Your task to perform on an android device: manage bookmarks in the chrome app Image 0: 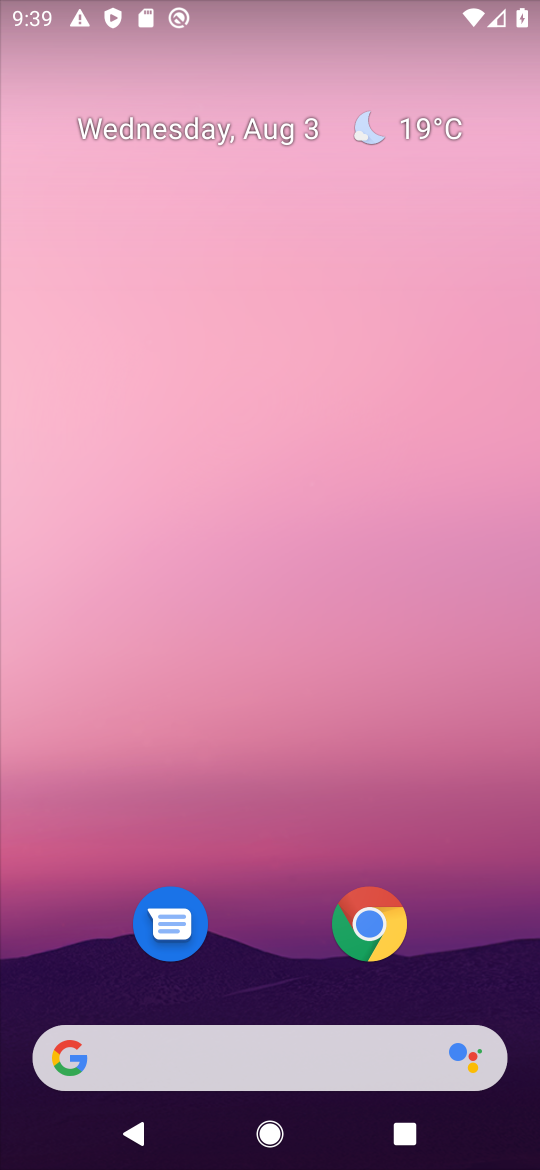
Step 0: press home button
Your task to perform on an android device: manage bookmarks in the chrome app Image 1: 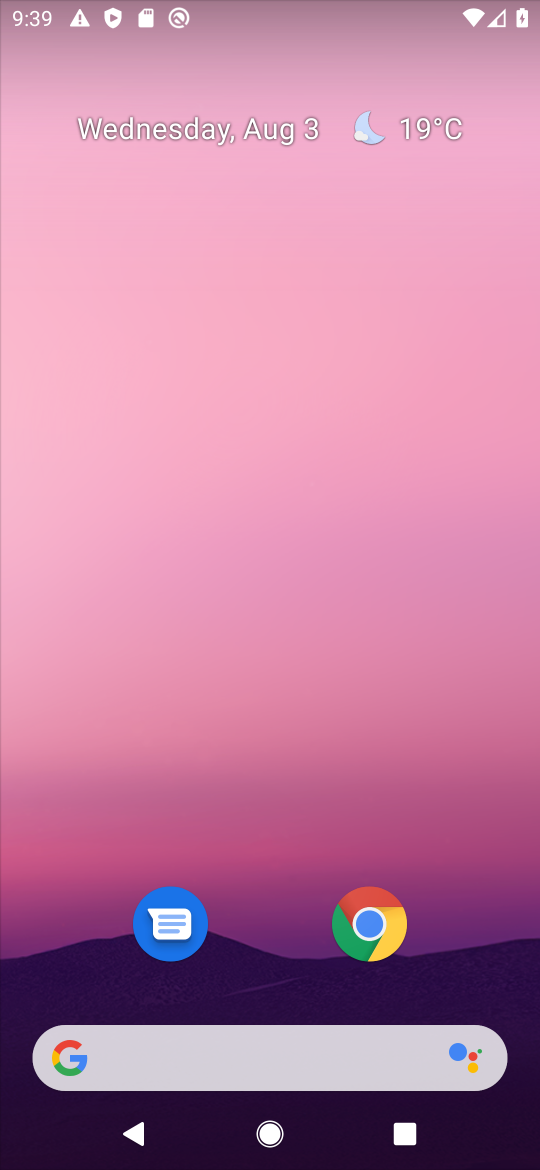
Step 1: click (365, 908)
Your task to perform on an android device: manage bookmarks in the chrome app Image 2: 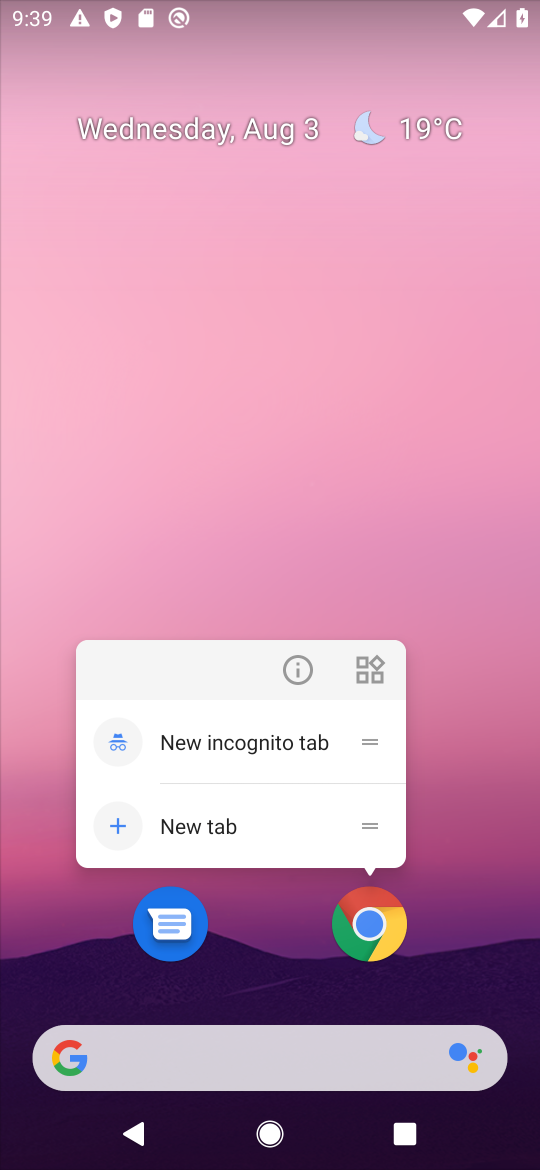
Step 2: click (366, 903)
Your task to perform on an android device: manage bookmarks in the chrome app Image 3: 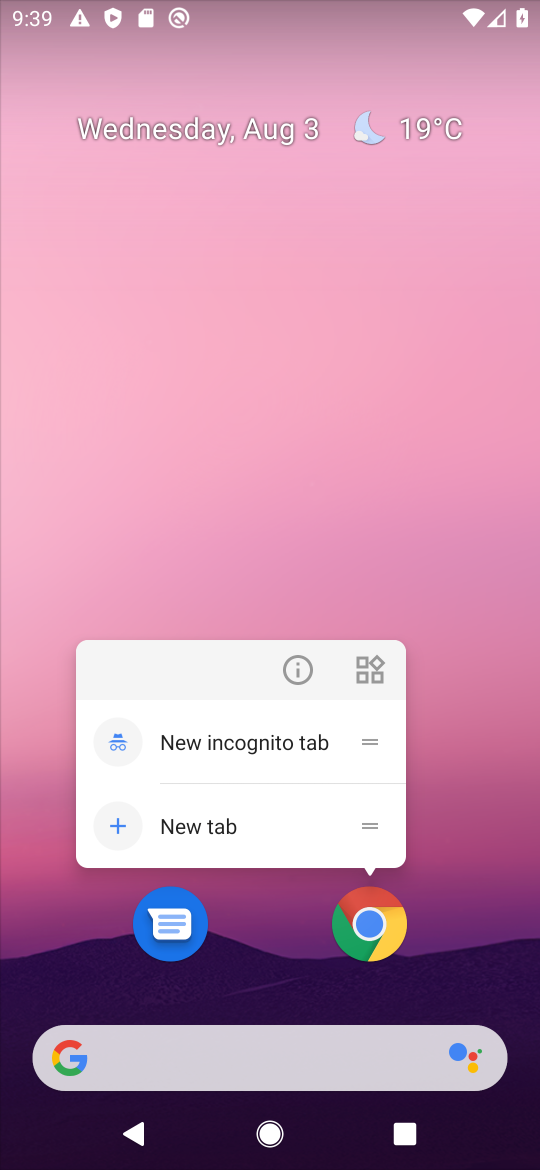
Step 3: click (367, 915)
Your task to perform on an android device: manage bookmarks in the chrome app Image 4: 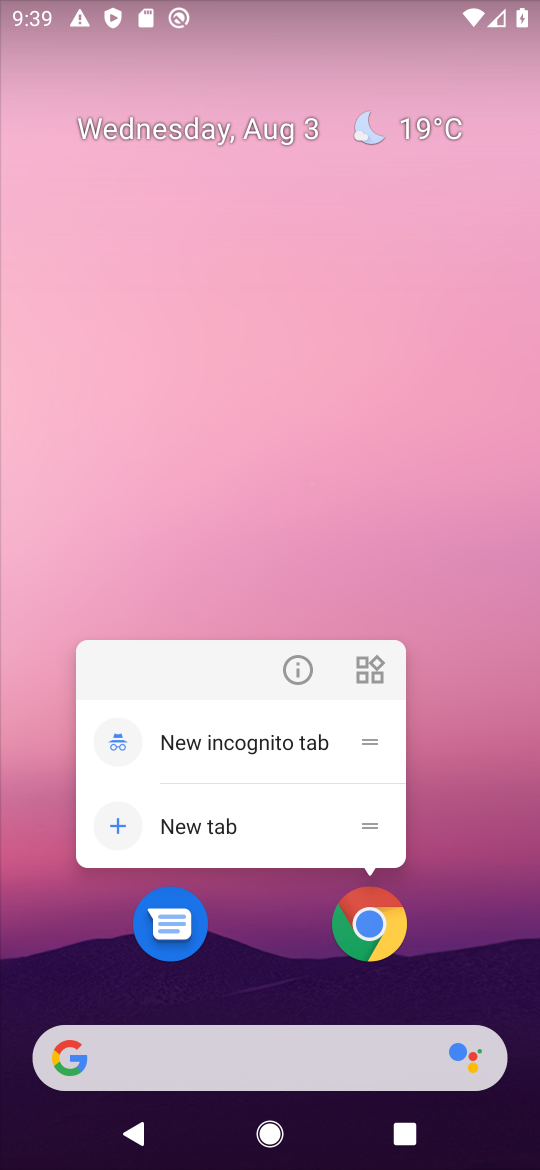
Step 4: click (442, 979)
Your task to perform on an android device: manage bookmarks in the chrome app Image 5: 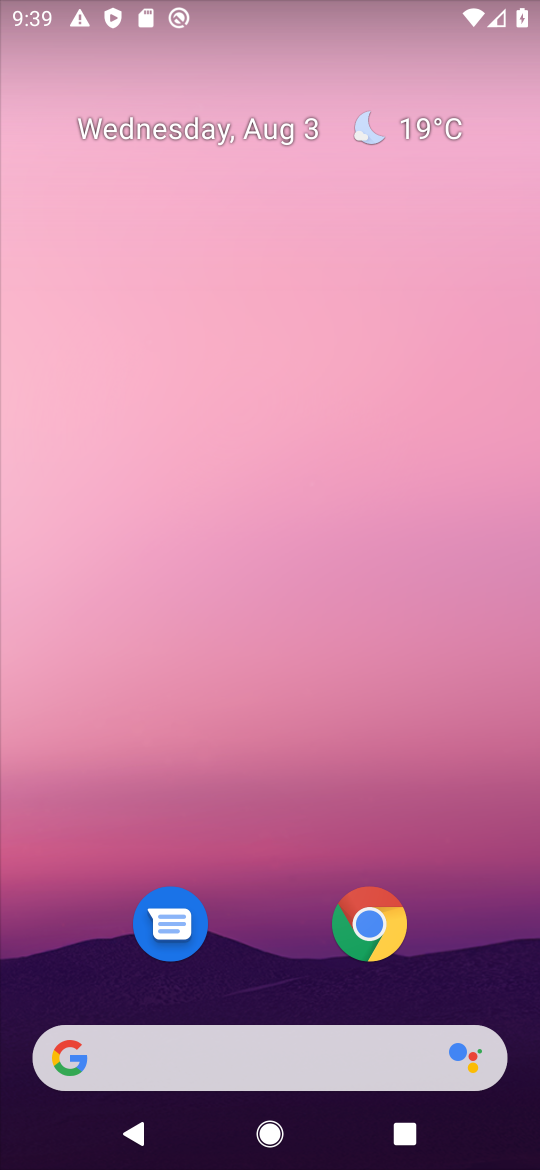
Step 5: drag from (464, 994) to (488, 0)
Your task to perform on an android device: manage bookmarks in the chrome app Image 6: 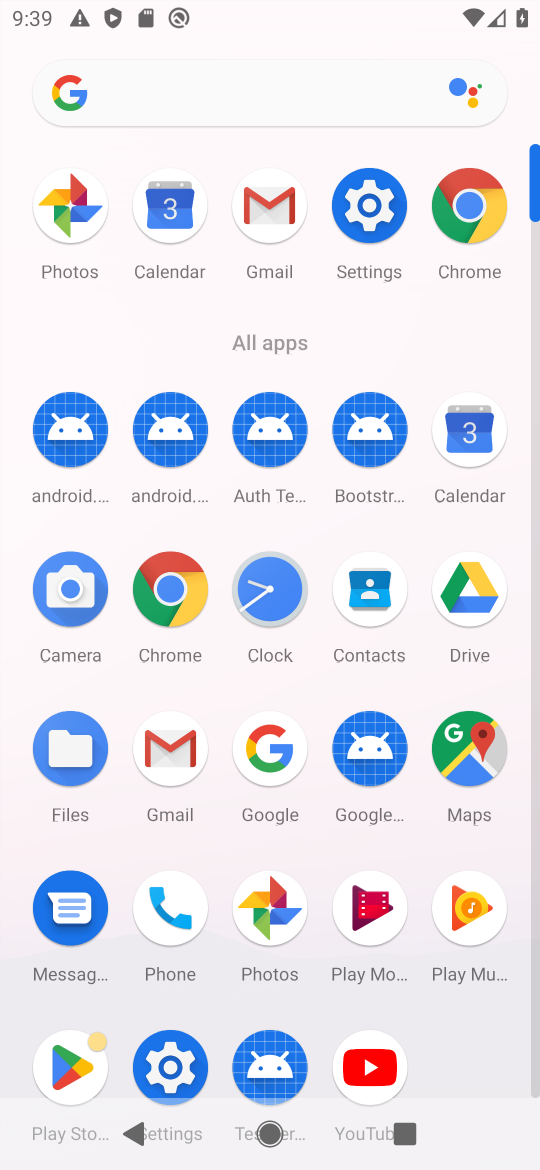
Step 6: click (157, 580)
Your task to perform on an android device: manage bookmarks in the chrome app Image 7: 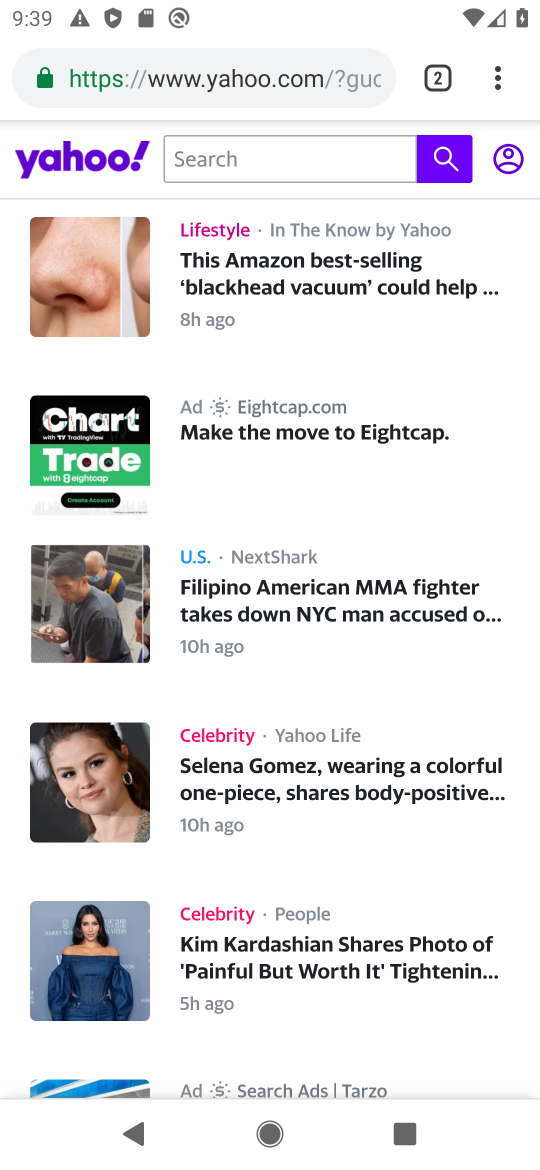
Step 7: click (497, 73)
Your task to perform on an android device: manage bookmarks in the chrome app Image 8: 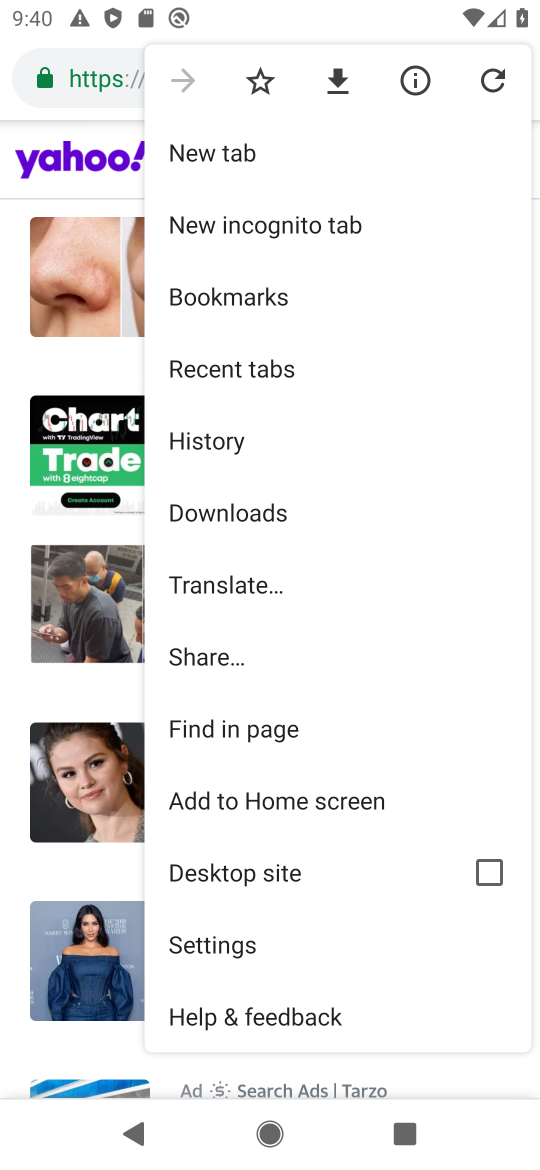
Step 8: click (291, 291)
Your task to perform on an android device: manage bookmarks in the chrome app Image 9: 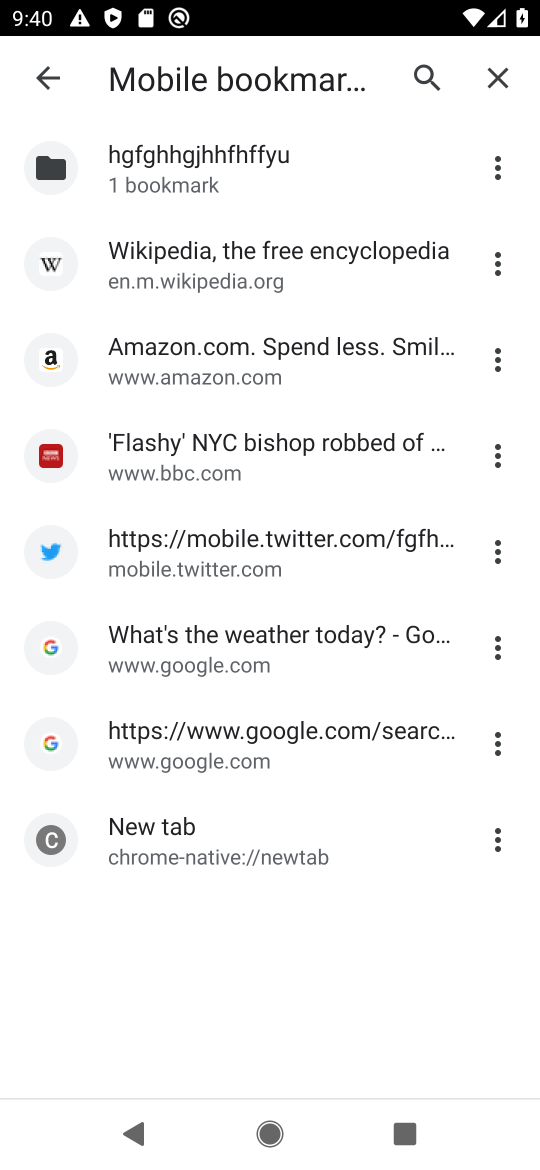
Step 9: click (227, 361)
Your task to perform on an android device: manage bookmarks in the chrome app Image 10: 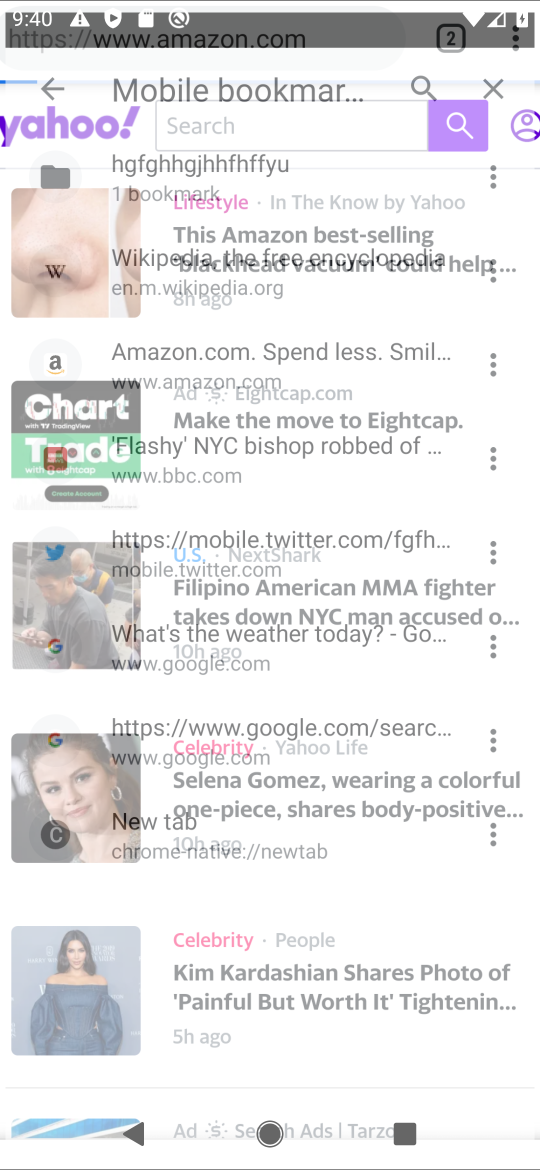
Step 10: task complete